Your task to perform on an android device: turn off wifi Image 0: 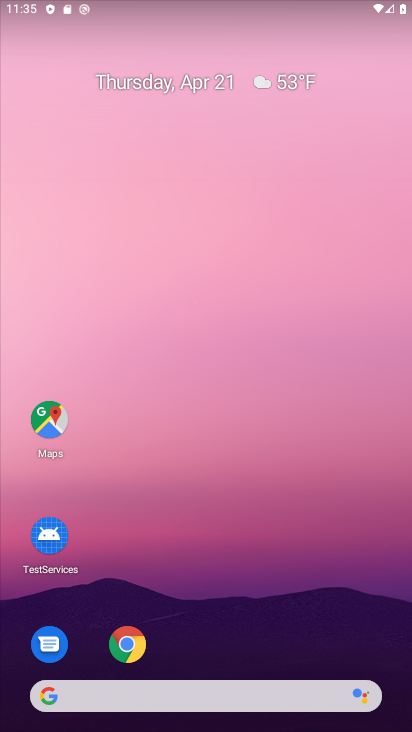
Step 0: drag from (227, 506) to (156, 64)
Your task to perform on an android device: turn off wifi Image 1: 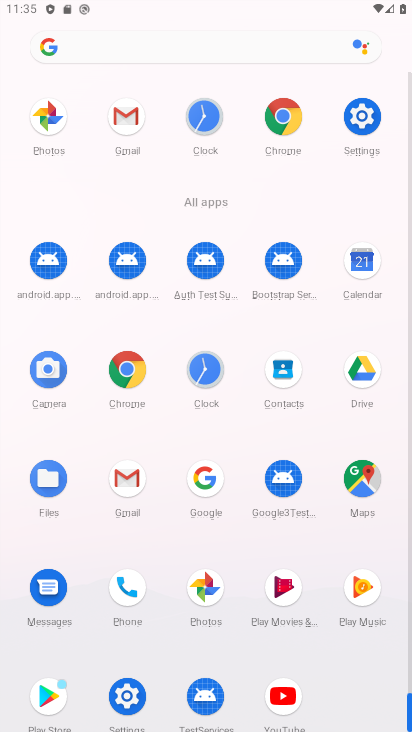
Step 1: click (356, 113)
Your task to perform on an android device: turn off wifi Image 2: 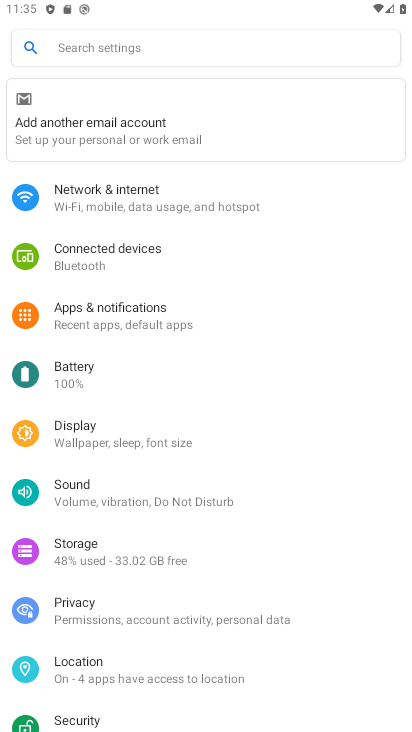
Step 2: click (136, 200)
Your task to perform on an android device: turn off wifi Image 3: 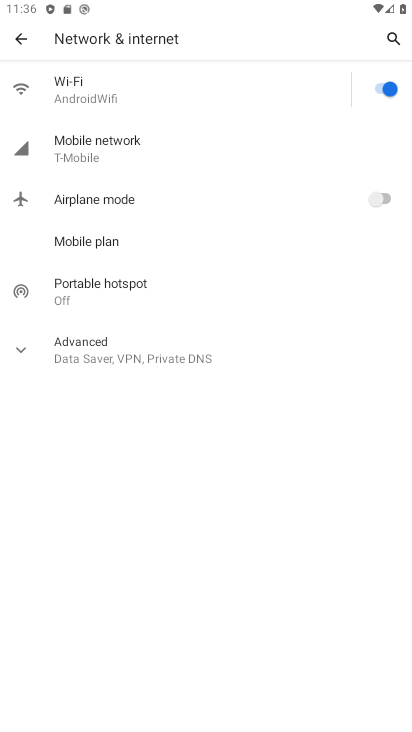
Step 3: click (126, 90)
Your task to perform on an android device: turn off wifi Image 4: 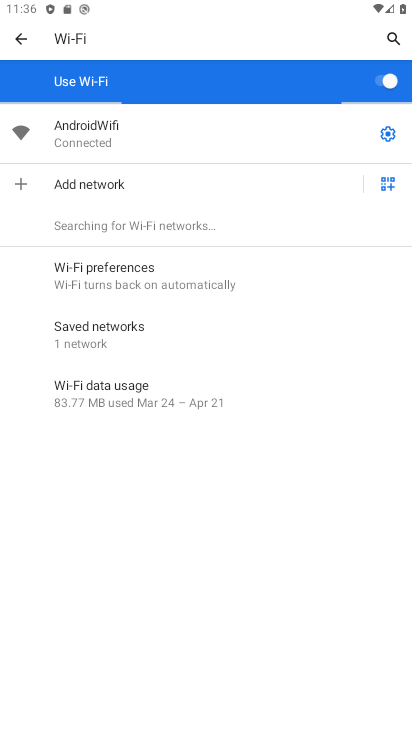
Step 4: click (384, 80)
Your task to perform on an android device: turn off wifi Image 5: 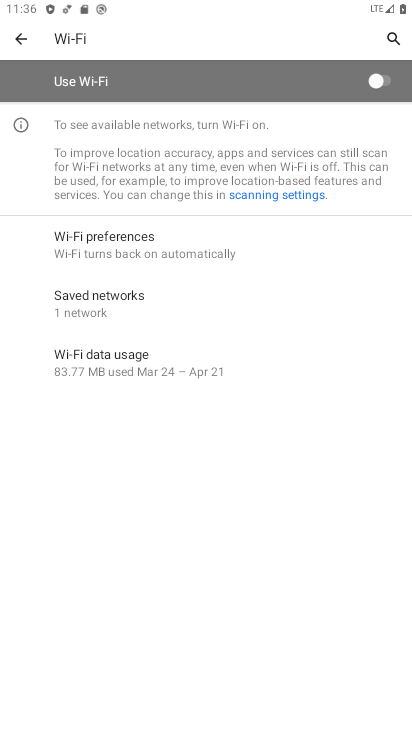
Step 5: task complete